Your task to perform on an android device: Open eBay Image 0: 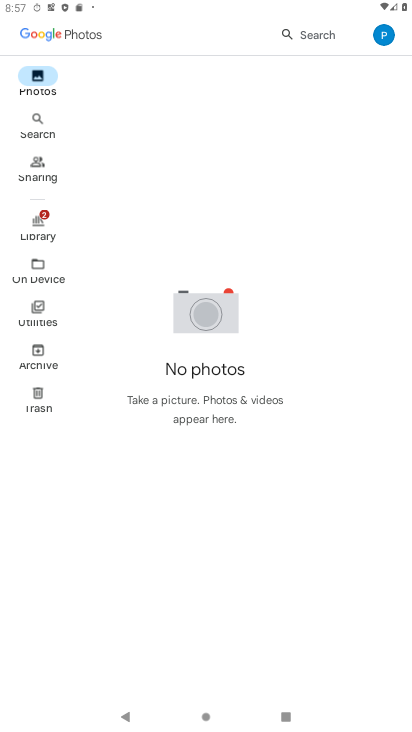
Step 0: press home button
Your task to perform on an android device: Open eBay Image 1: 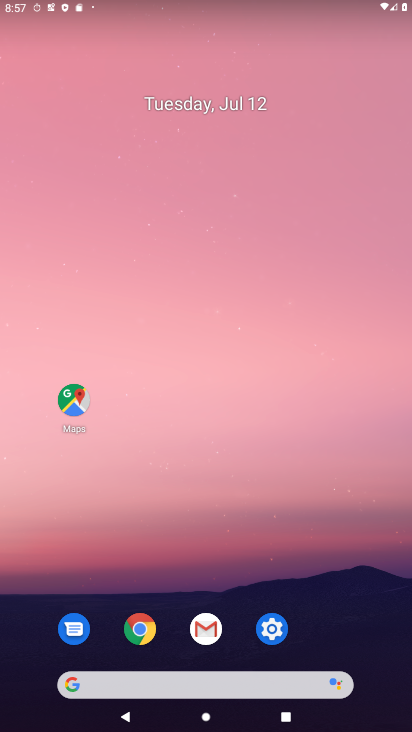
Step 1: click (153, 610)
Your task to perform on an android device: Open eBay Image 2: 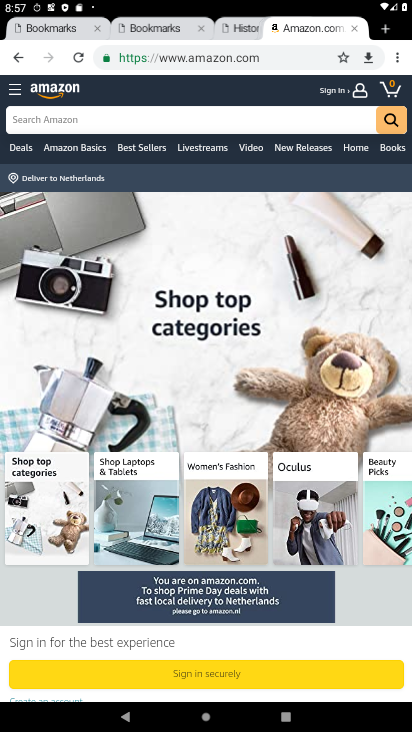
Step 2: click (388, 33)
Your task to perform on an android device: Open eBay Image 3: 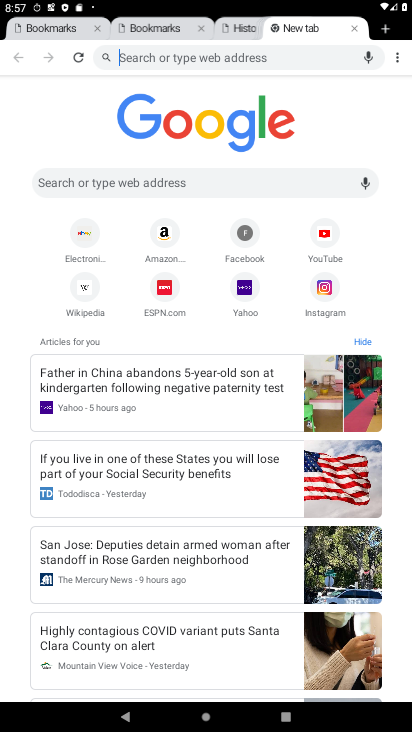
Step 3: click (95, 248)
Your task to perform on an android device: Open eBay Image 4: 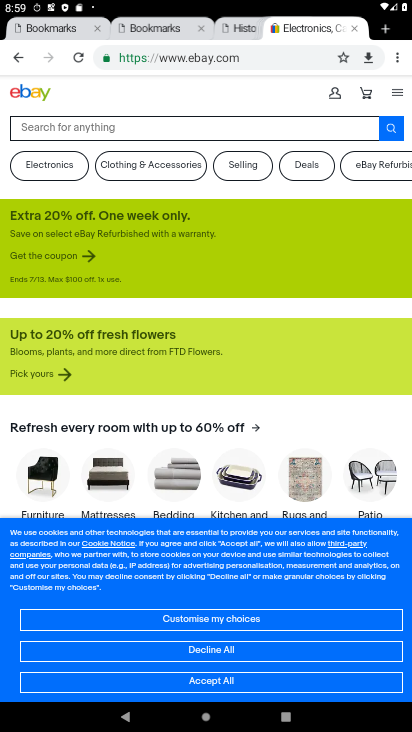
Step 4: task complete